Your task to perform on an android device: What's on my calendar tomorrow? Image 0: 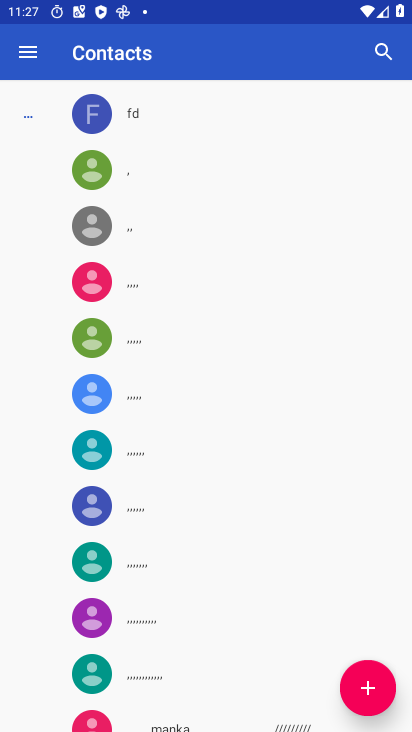
Step 0: press home button
Your task to perform on an android device: What's on my calendar tomorrow? Image 1: 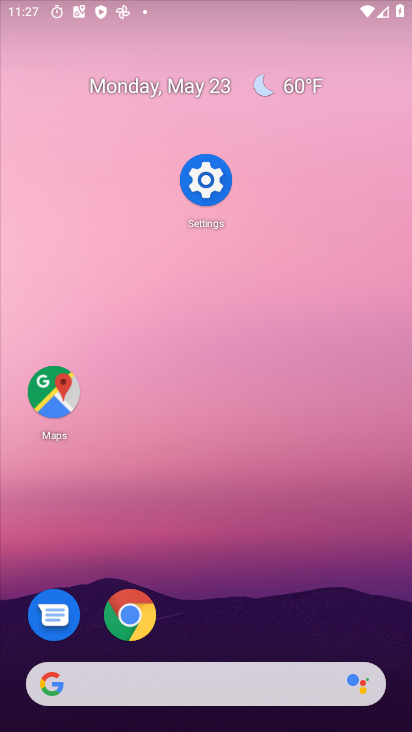
Step 1: drag from (229, 600) to (303, 54)
Your task to perform on an android device: What's on my calendar tomorrow? Image 2: 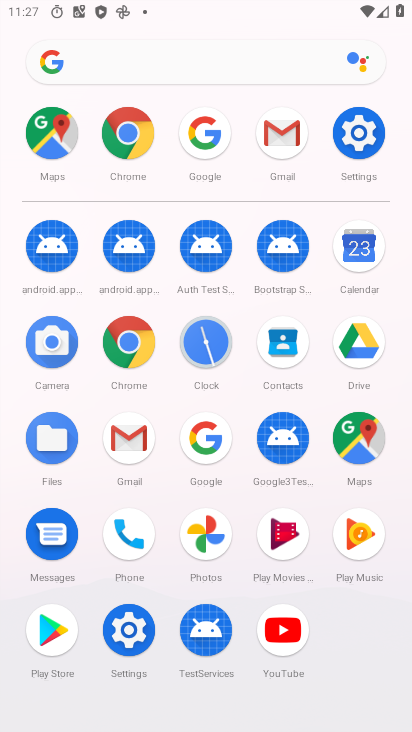
Step 2: click (352, 249)
Your task to perform on an android device: What's on my calendar tomorrow? Image 3: 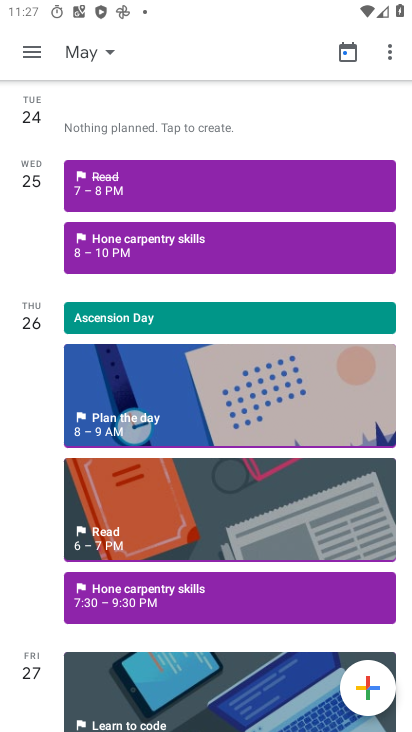
Step 3: click (103, 58)
Your task to perform on an android device: What's on my calendar tomorrow? Image 4: 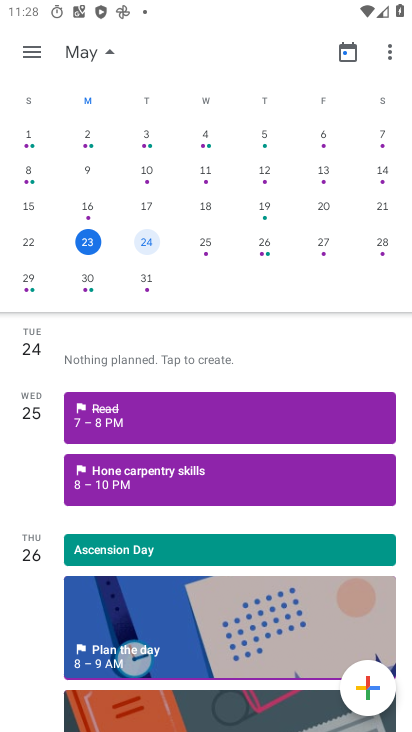
Step 4: click (152, 248)
Your task to perform on an android device: What's on my calendar tomorrow? Image 5: 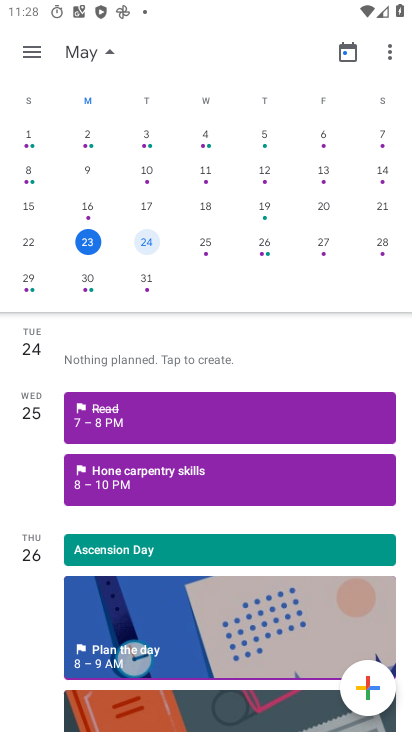
Step 5: task complete